Your task to perform on an android device: open app "Cash App" (install if not already installed), go to login, and select forgot password Image 0: 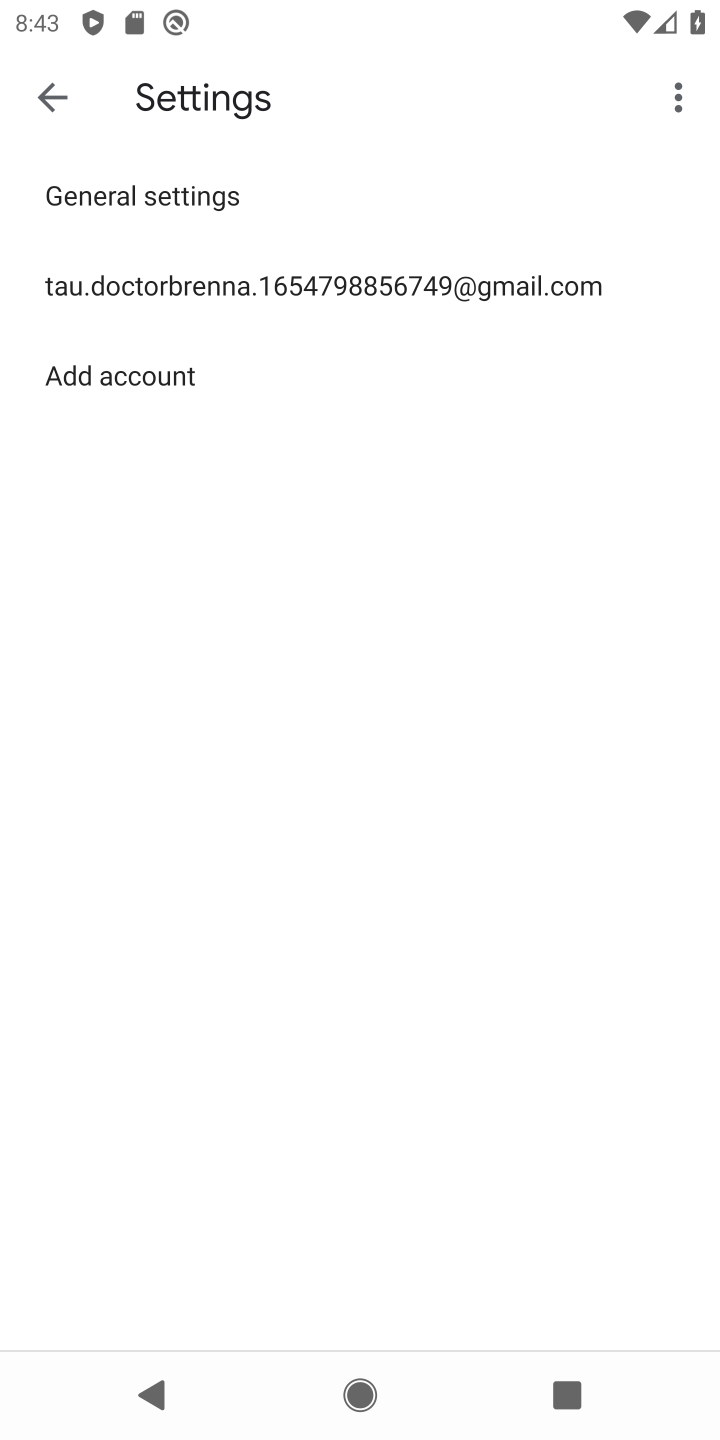
Step 0: press home button
Your task to perform on an android device: open app "Cash App" (install if not already installed), go to login, and select forgot password Image 1: 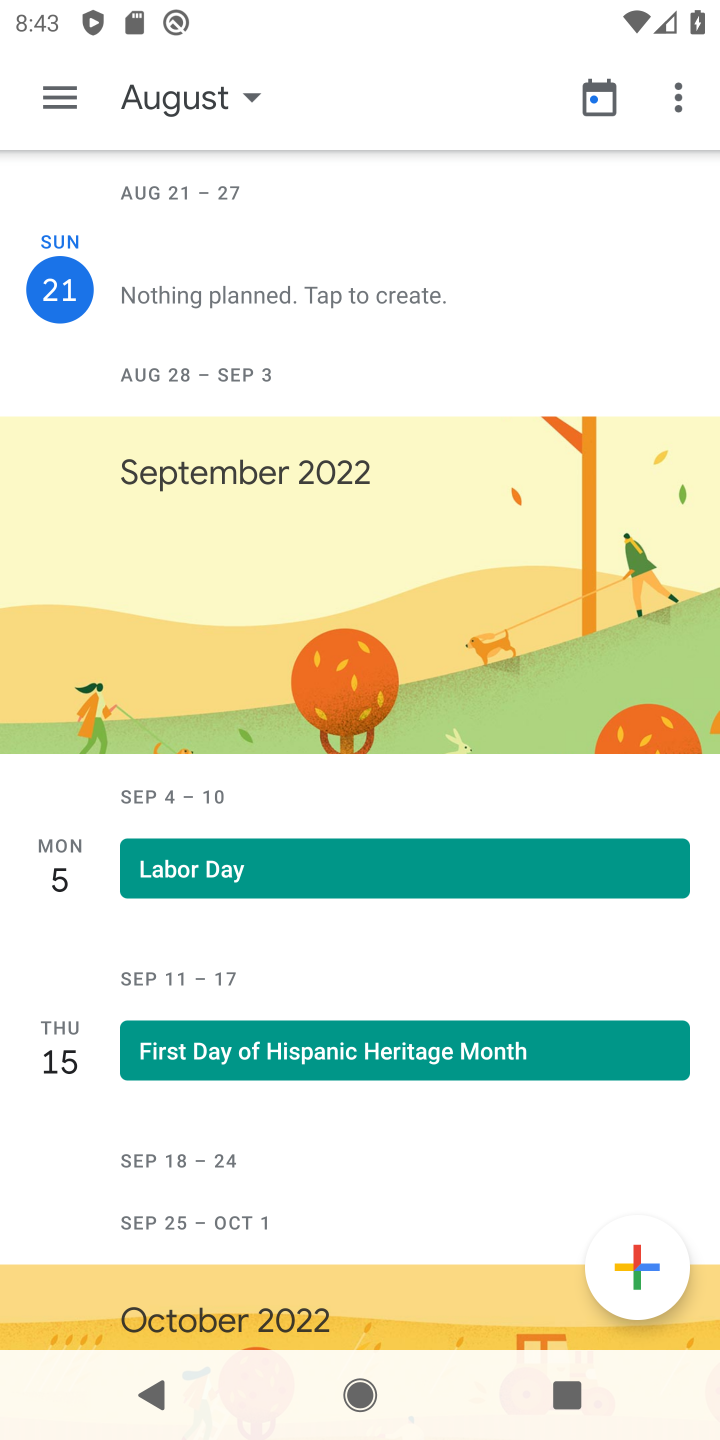
Step 1: press home button
Your task to perform on an android device: open app "Cash App" (install if not already installed), go to login, and select forgot password Image 2: 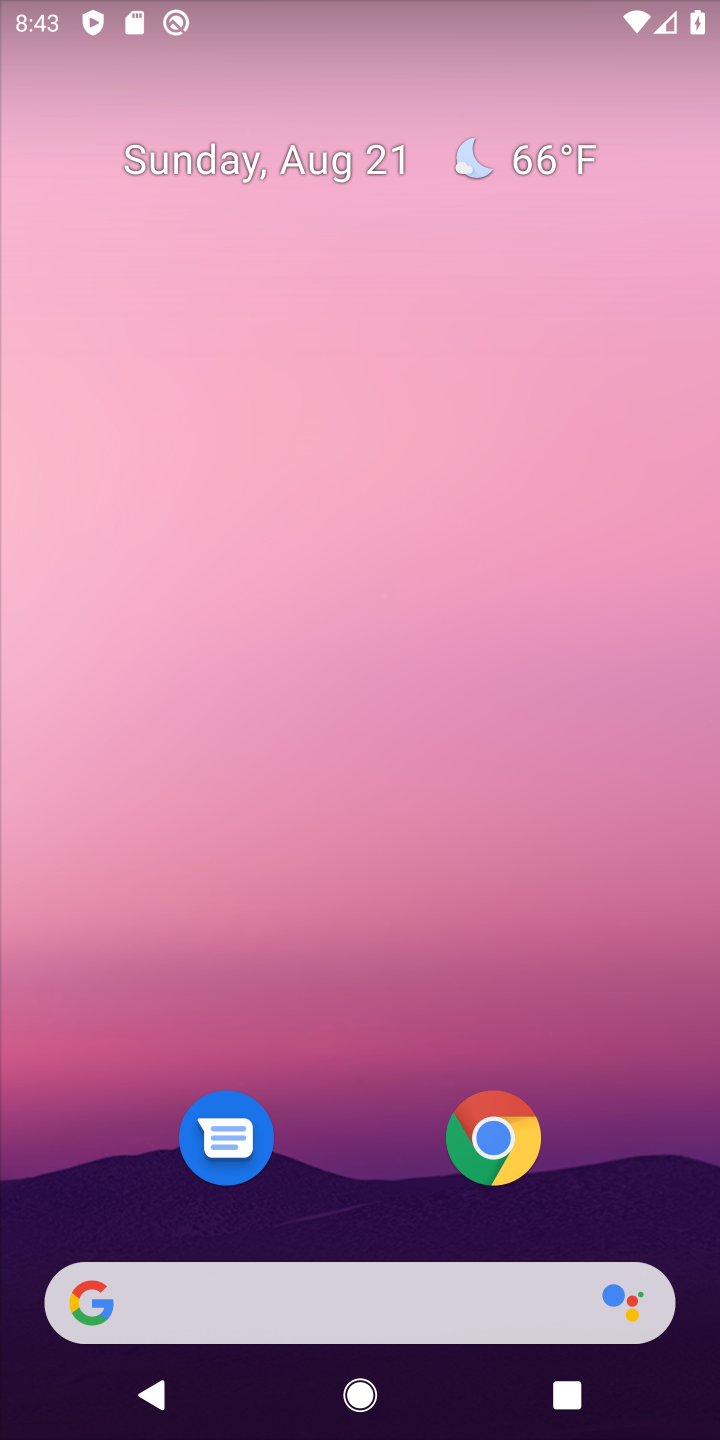
Step 2: drag from (649, 1050) to (647, 85)
Your task to perform on an android device: open app "Cash App" (install if not already installed), go to login, and select forgot password Image 3: 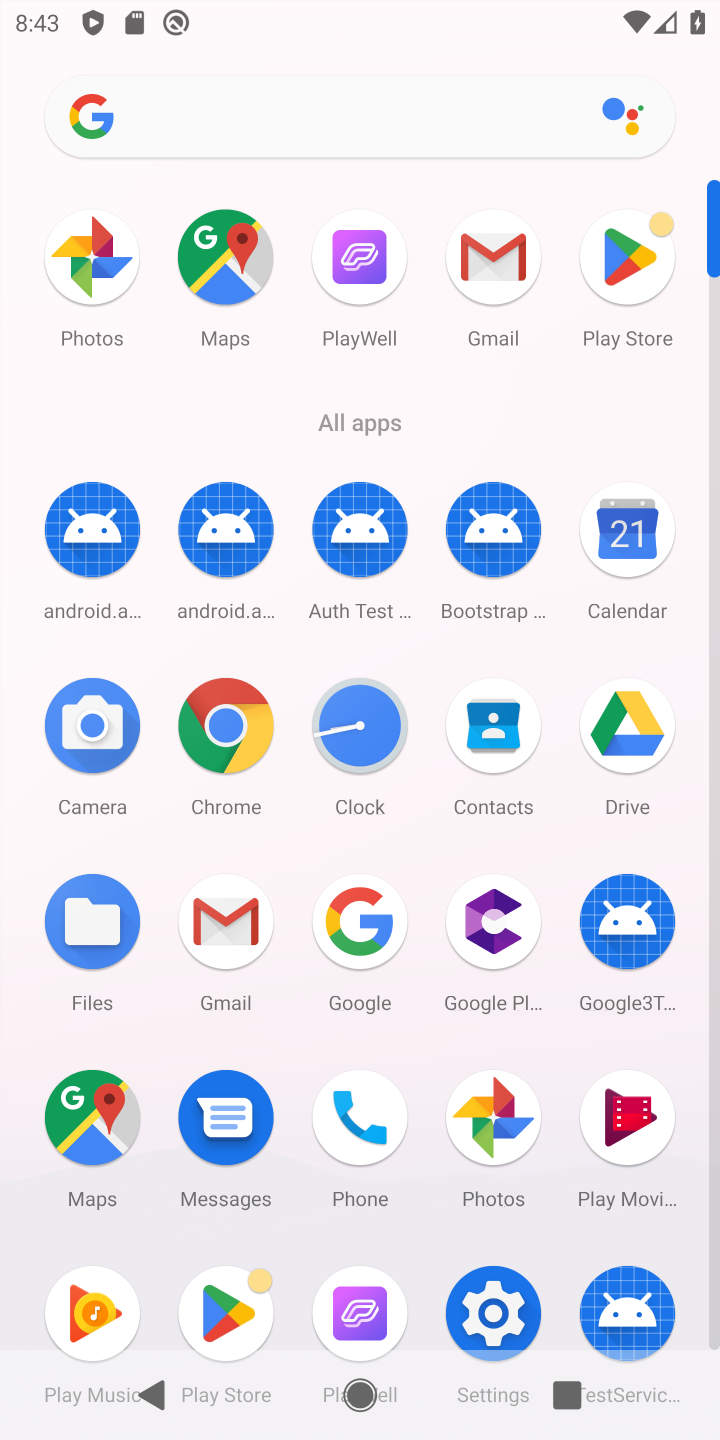
Step 3: click (627, 256)
Your task to perform on an android device: open app "Cash App" (install if not already installed), go to login, and select forgot password Image 4: 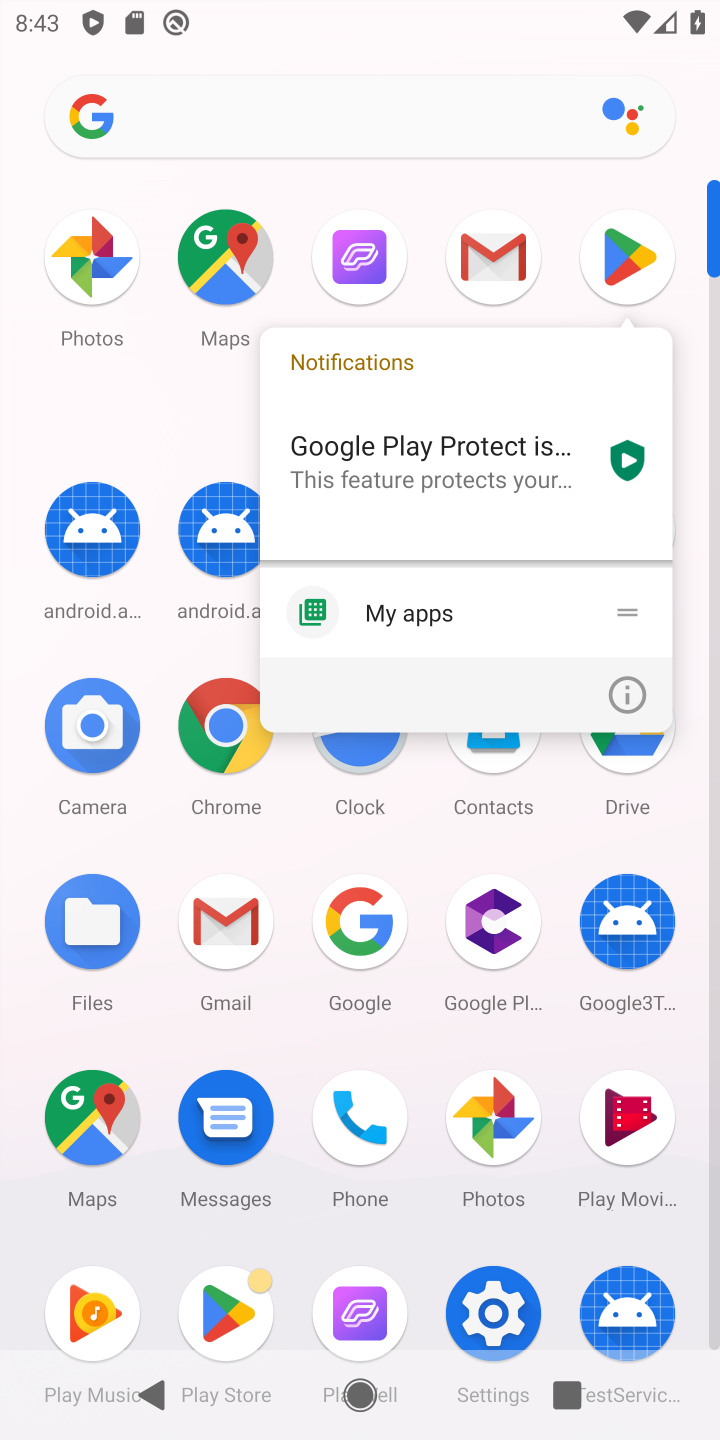
Step 4: click (627, 256)
Your task to perform on an android device: open app "Cash App" (install if not already installed), go to login, and select forgot password Image 5: 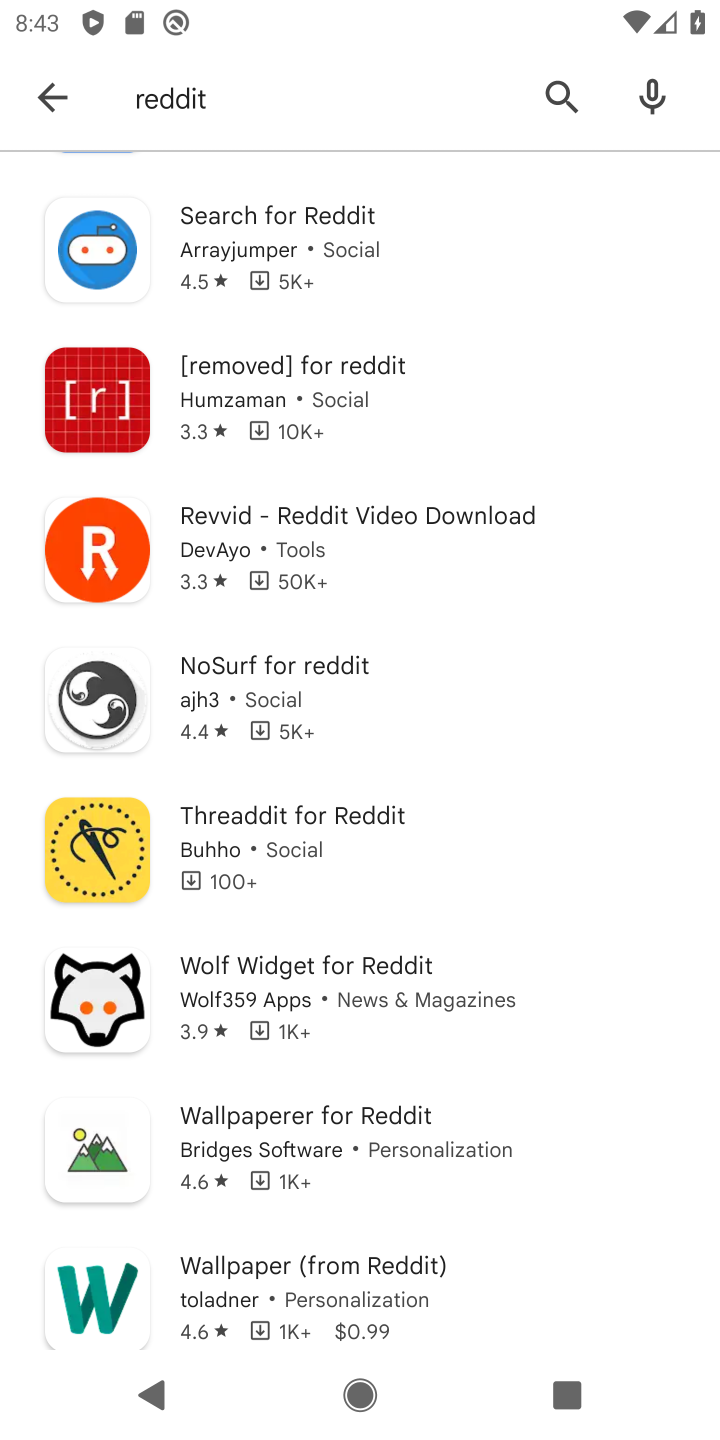
Step 5: press back button
Your task to perform on an android device: open app "Cash App" (install if not already installed), go to login, and select forgot password Image 6: 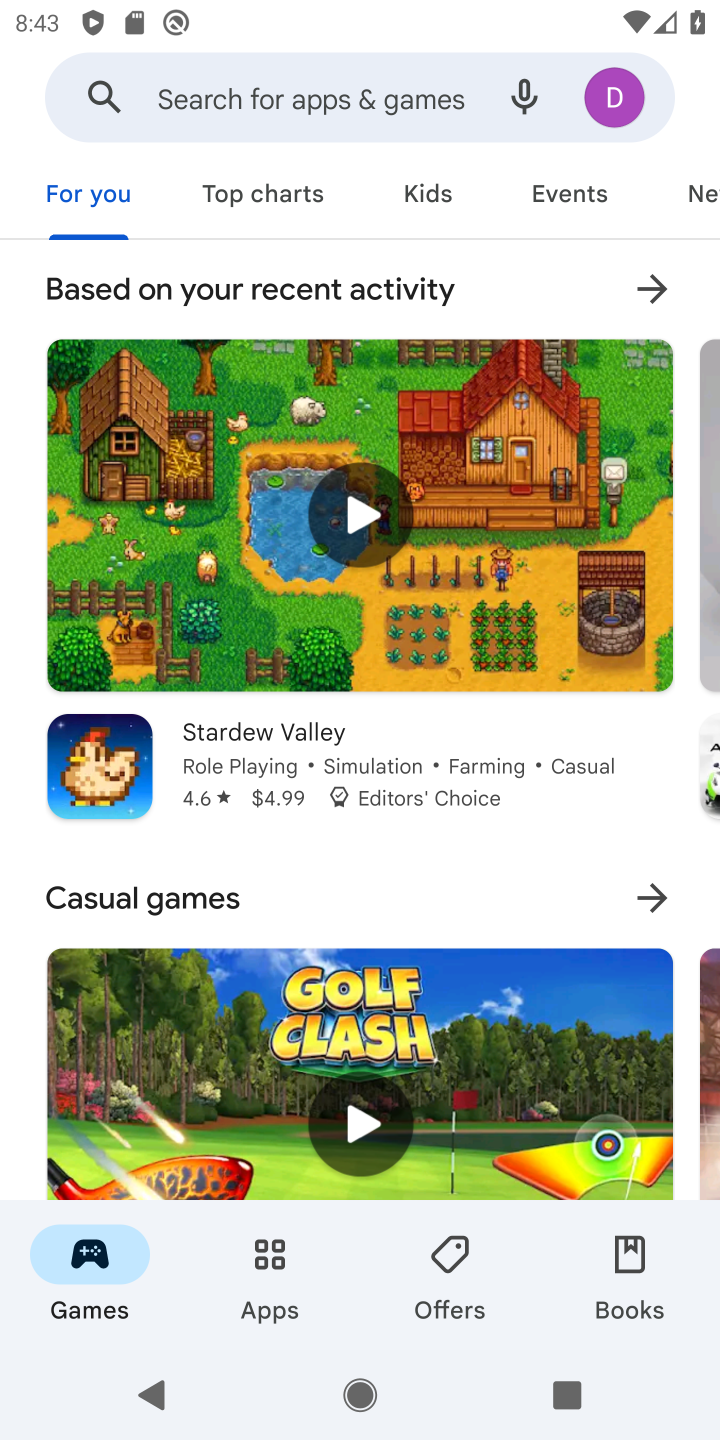
Step 6: click (355, 83)
Your task to perform on an android device: open app "Cash App" (install if not already installed), go to login, and select forgot password Image 7: 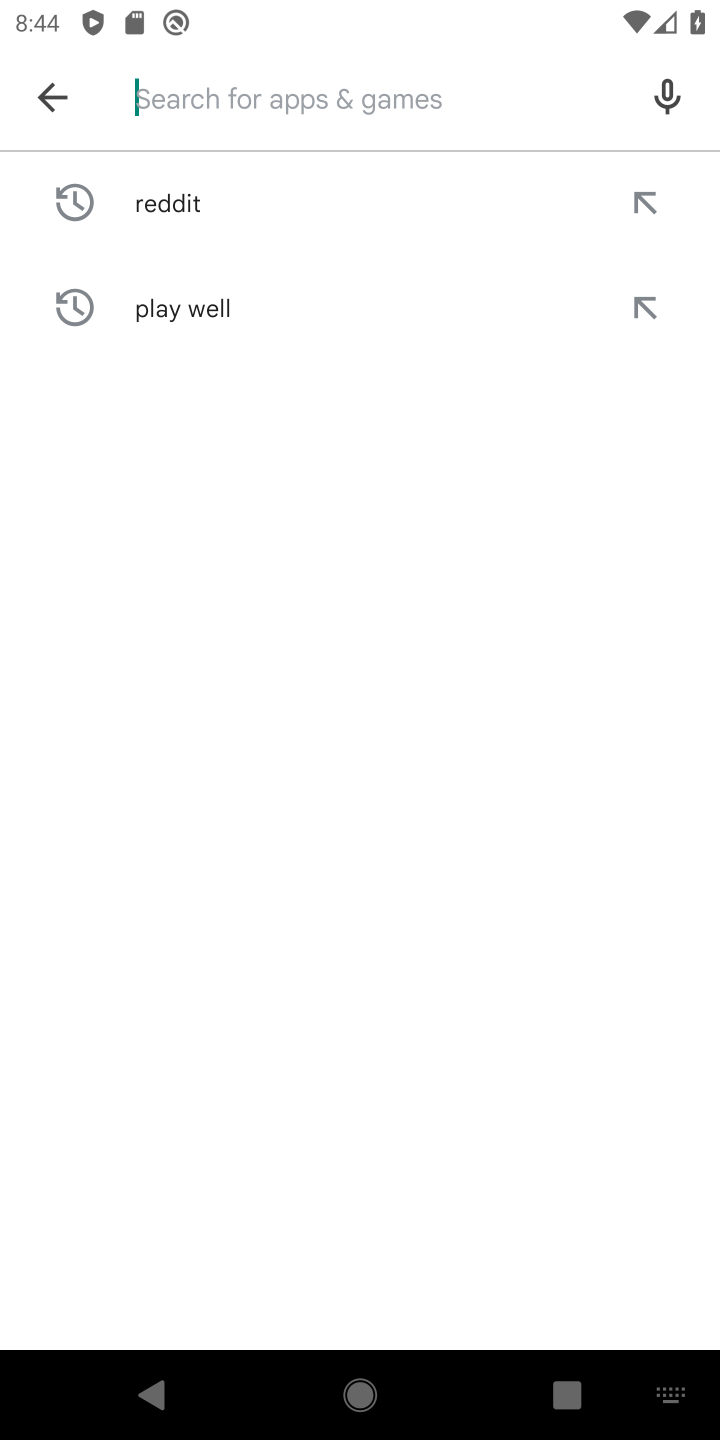
Step 7: press enter
Your task to perform on an android device: open app "Cash App" (install if not already installed), go to login, and select forgot password Image 8: 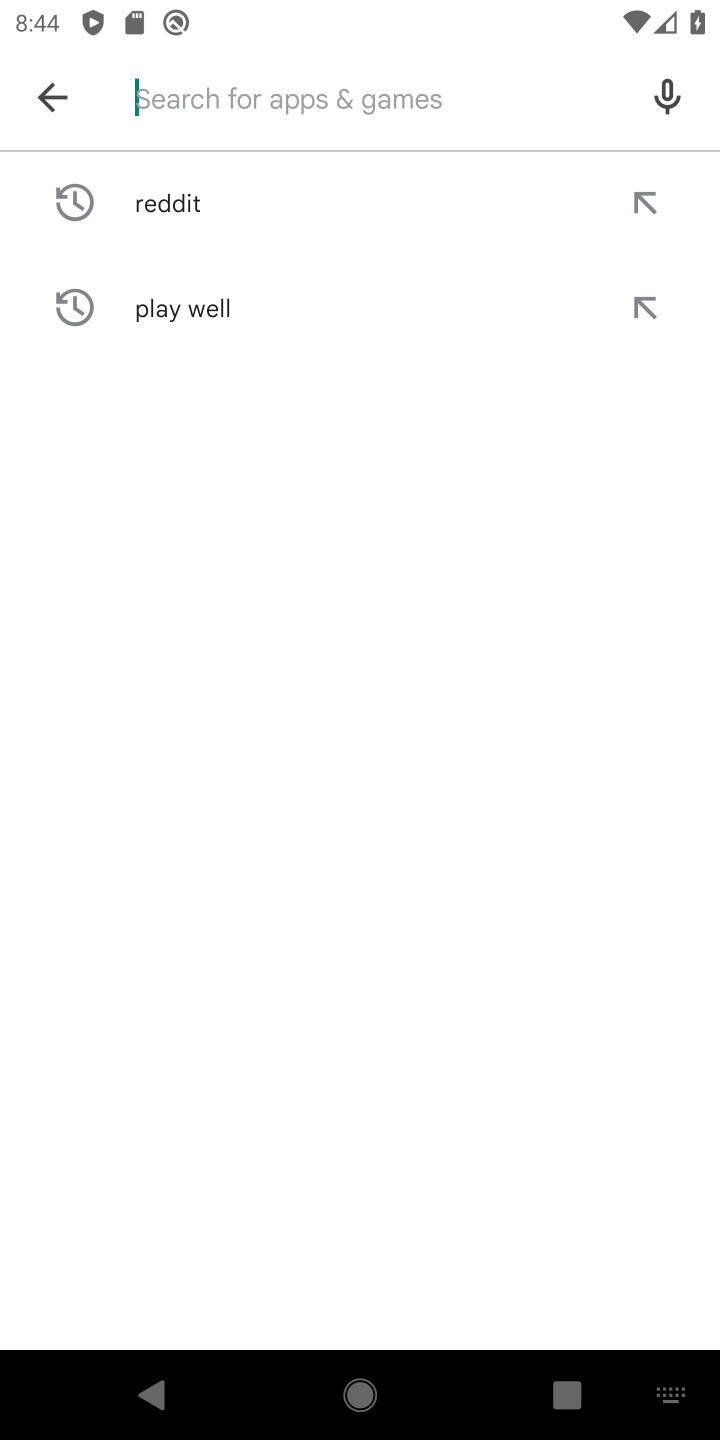
Step 8: type "cash app"
Your task to perform on an android device: open app "Cash App" (install if not already installed), go to login, and select forgot password Image 9: 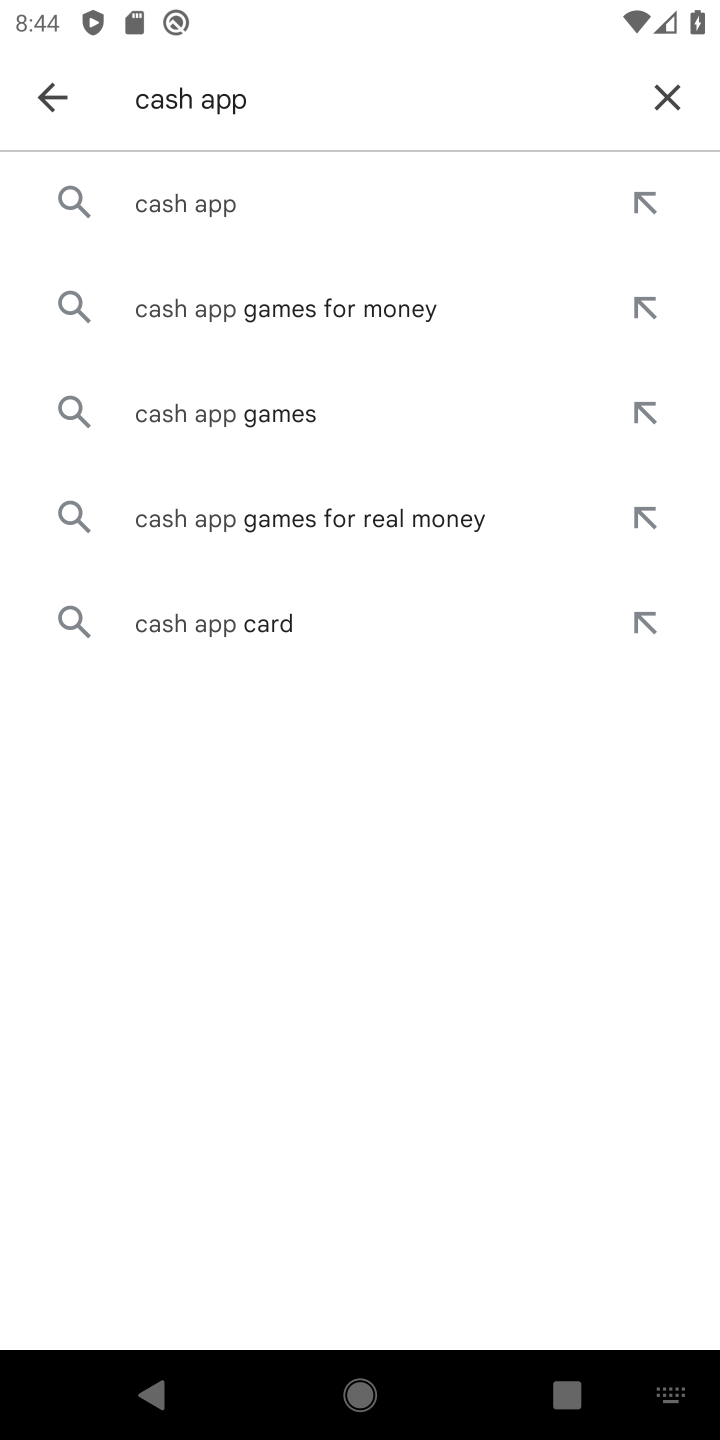
Step 9: click (276, 191)
Your task to perform on an android device: open app "Cash App" (install if not already installed), go to login, and select forgot password Image 10: 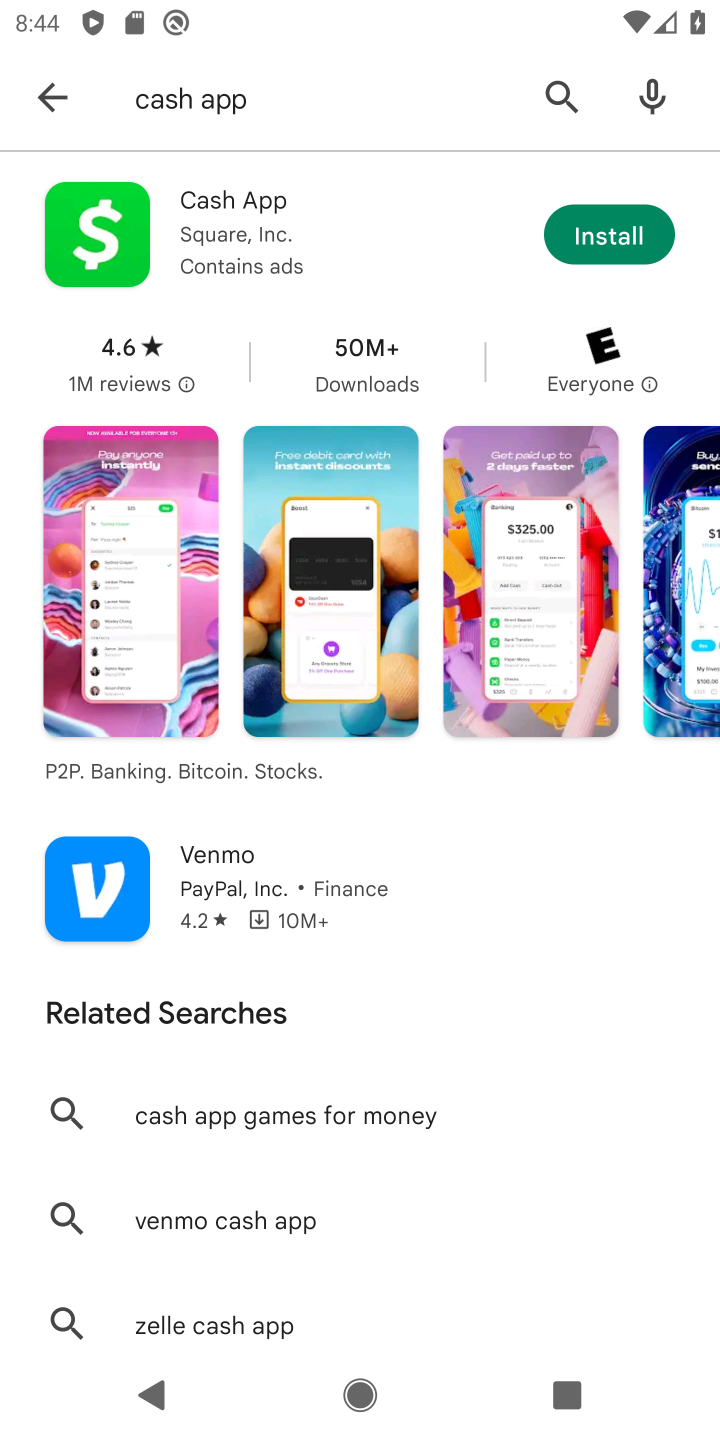
Step 10: click (621, 231)
Your task to perform on an android device: open app "Cash App" (install if not already installed), go to login, and select forgot password Image 11: 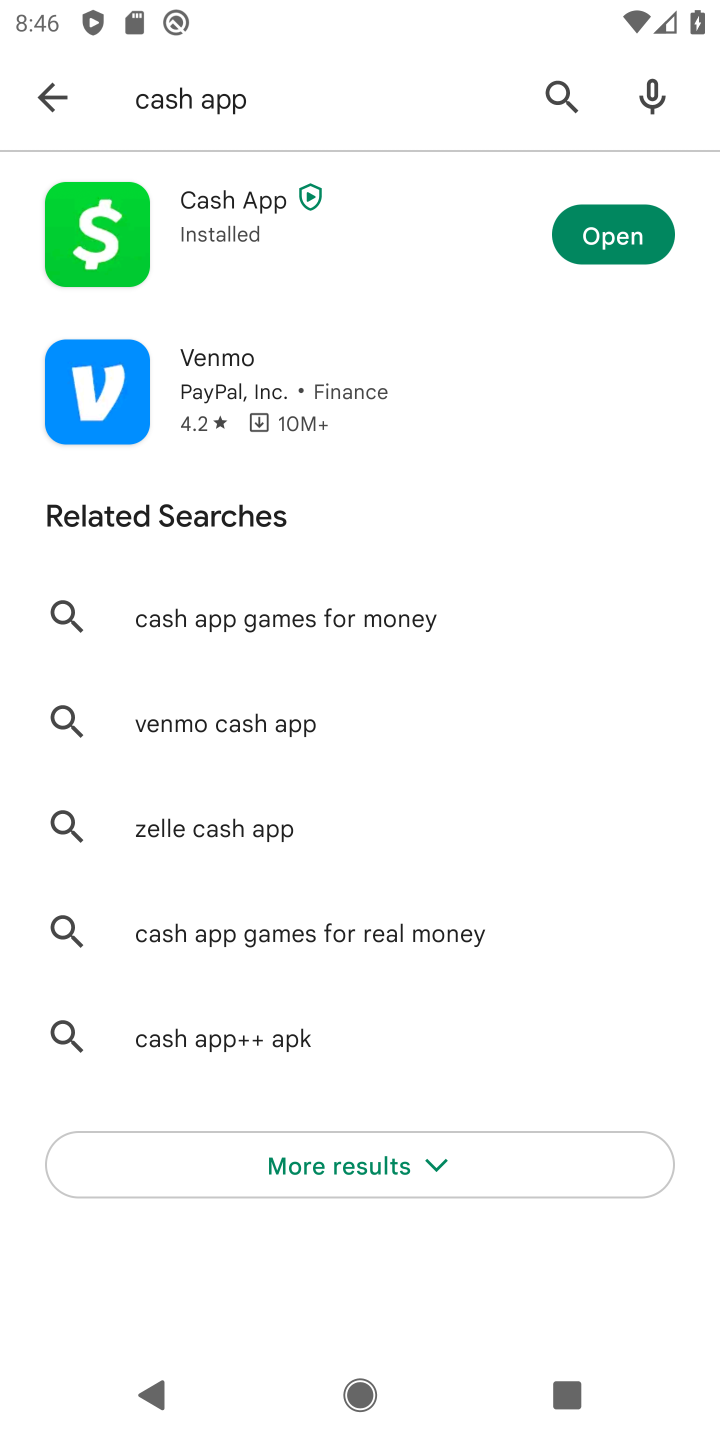
Step 11: click (625, 220)
Your task to perform on an android device: open app "Cash App" (install if not already installed), go to login, and select forgot password Image 12: 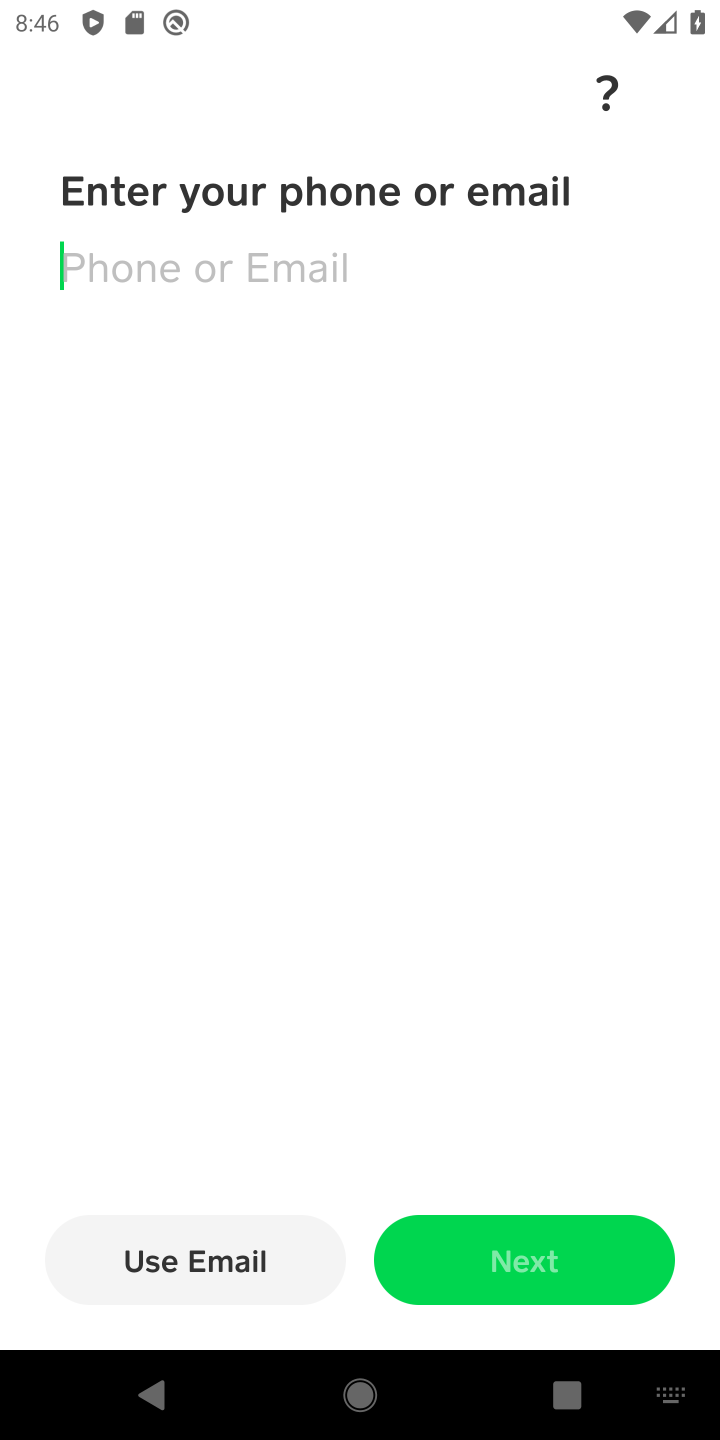
Step 12: click (500, 1254)
Your task to perform on an android device: open app "Cash App" (install if not already installed), go to login, and select forgot password Image 13: 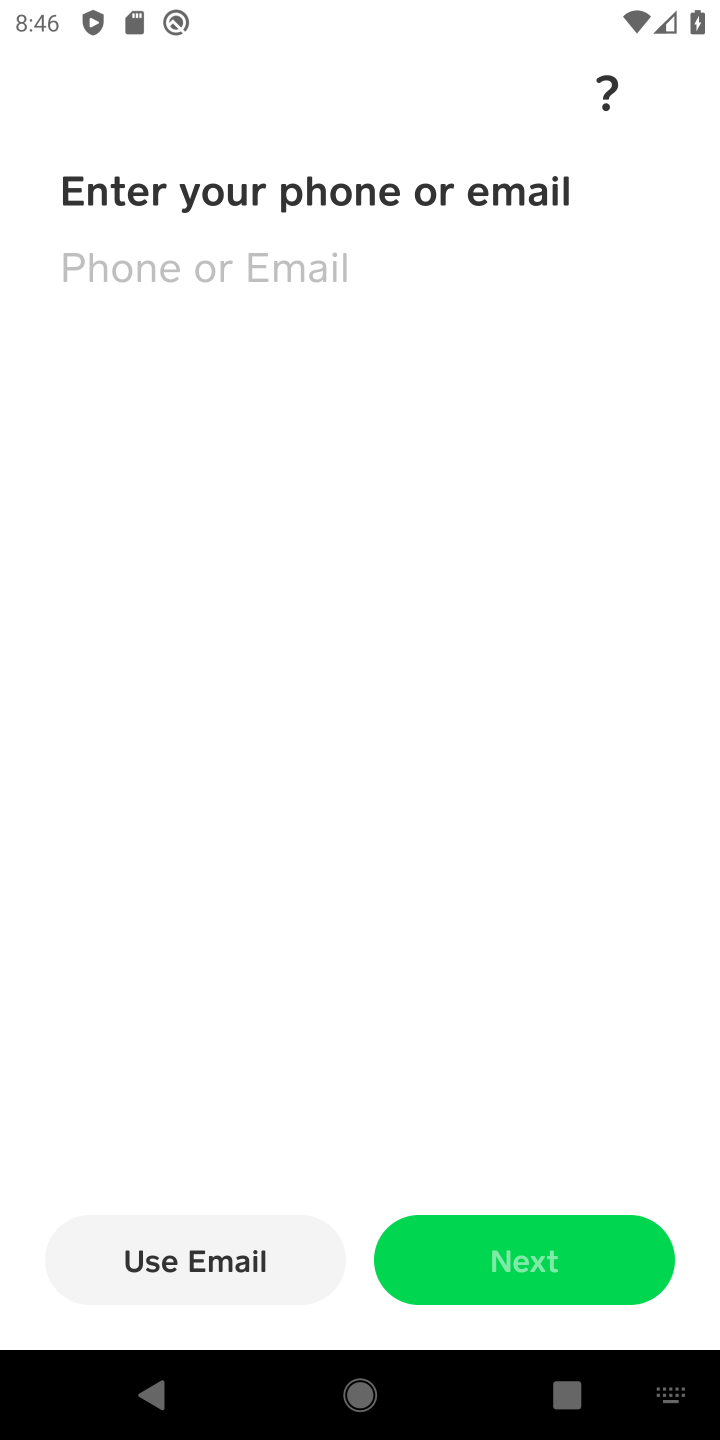
Step 13: click (177, 1280)
Your task to perform on an android device: open app "Cash App" (install if not already installed), go to login, and select forgot password Image 14: 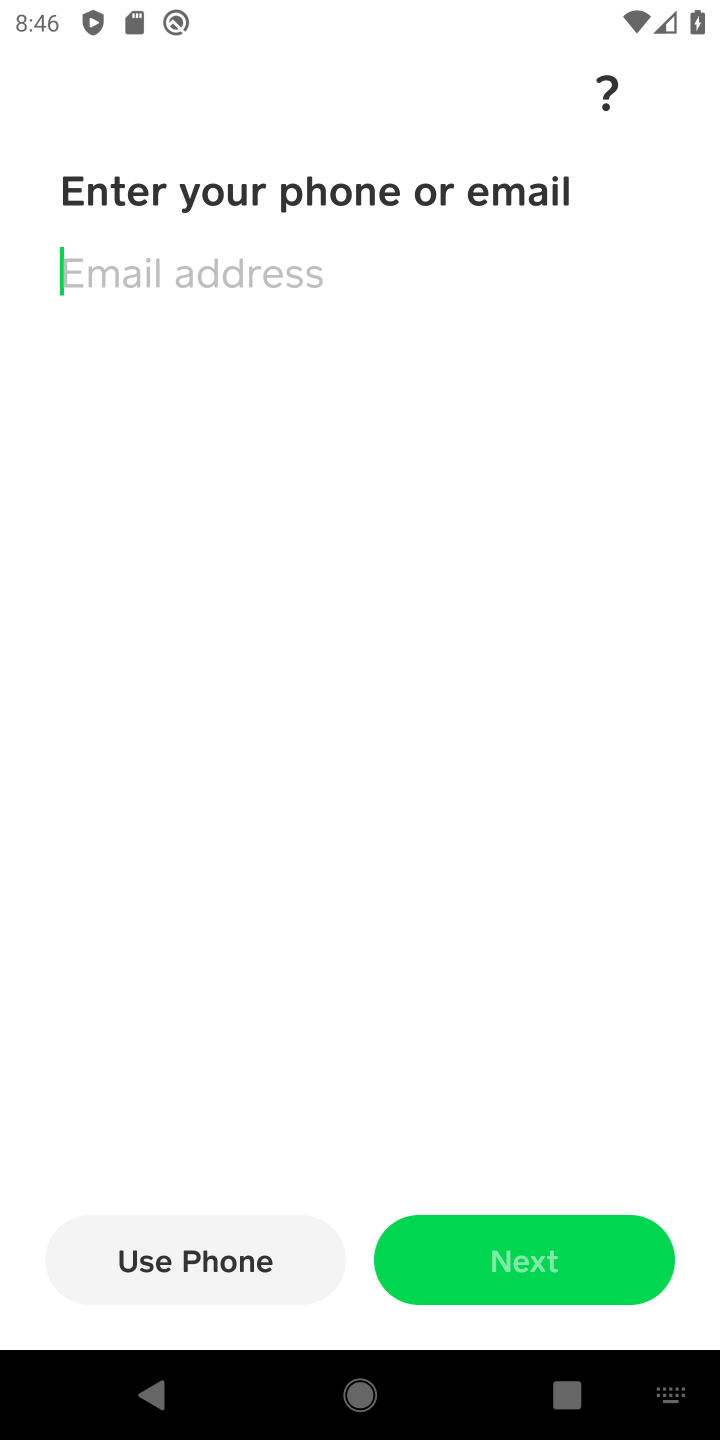
Step 14: click (526, 1263)
Your task to perform on an android device: open app "Cash App" (install if not already installed), go to login, and select forgot password Image 15: 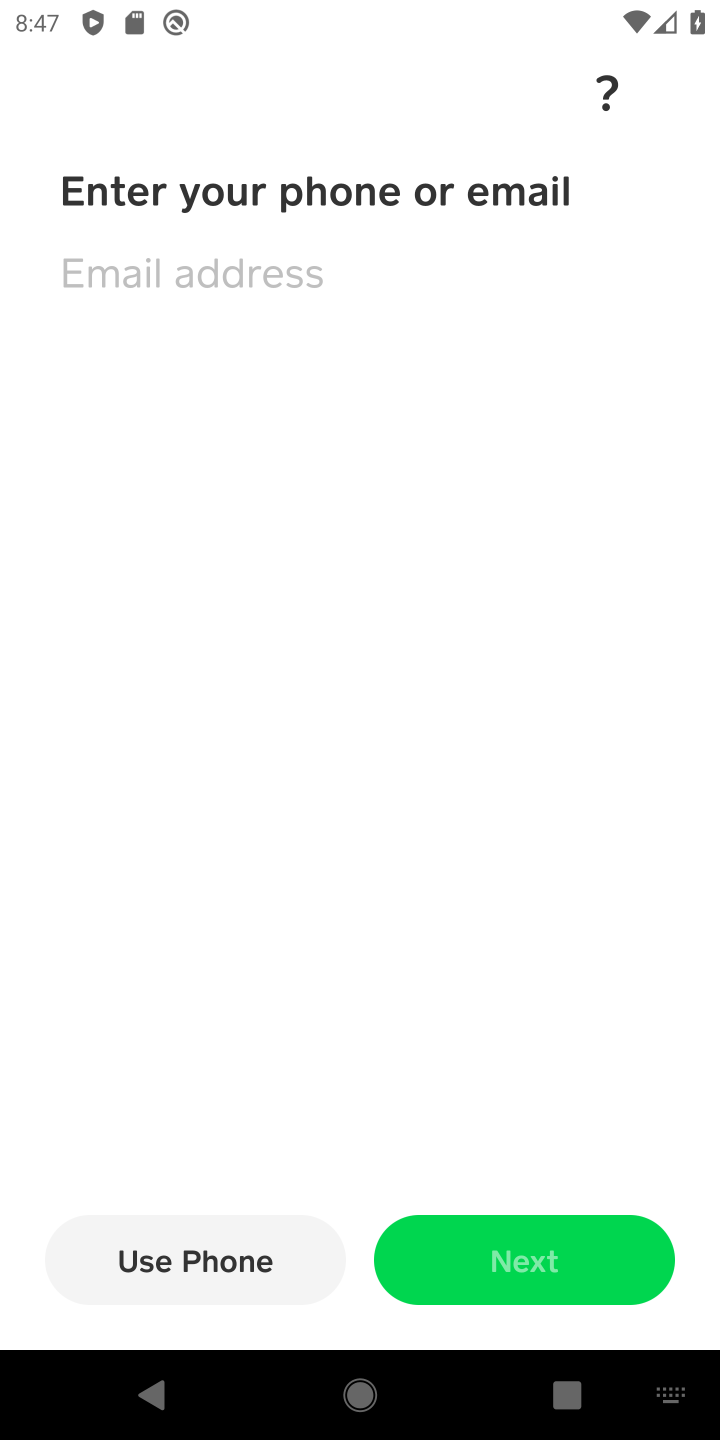
Step 15: task complete